Your task to perform on an android device: delete location history Image 0: 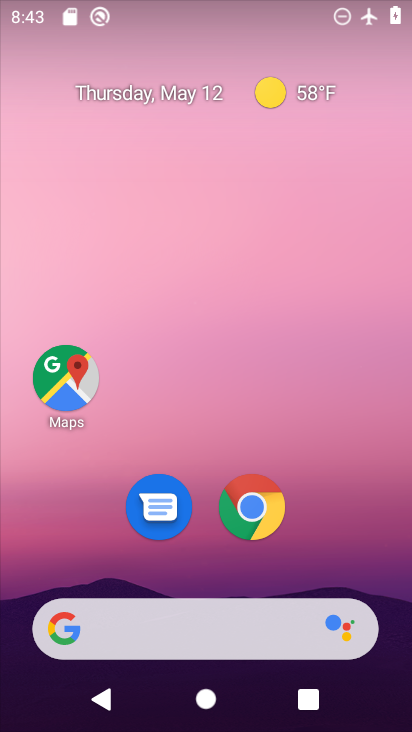
Step 0: drag from (182, 563) to (192, 139)
Your task to perform on an android device: delete location history Image 1: 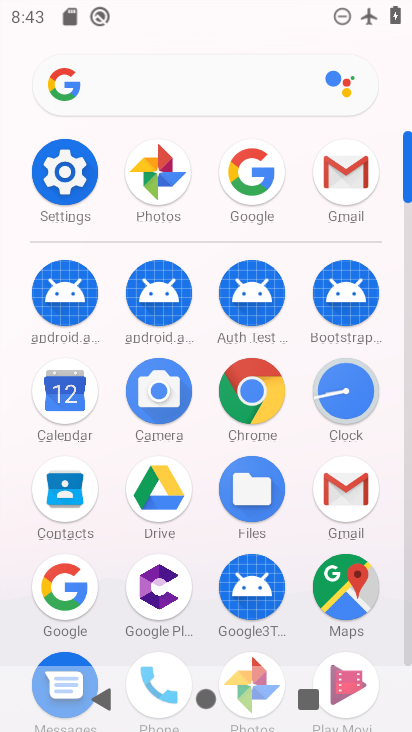
Step 1: click (331, 582)
Your task to perform on an android device: delete location history Image 2: 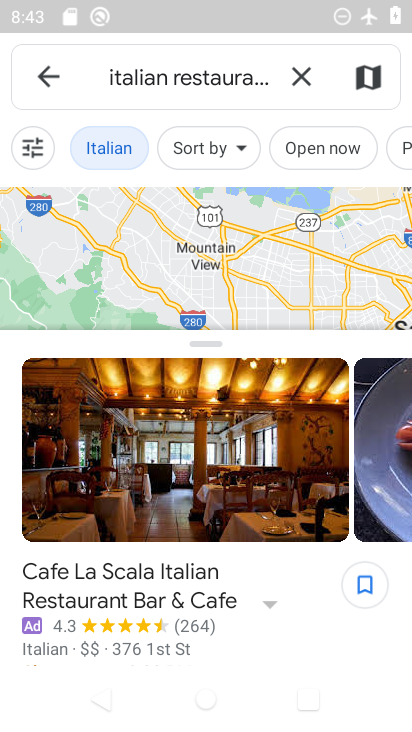
Step 2: click (27, 65)
Your task to perform on an android device: delete location history Image 3: 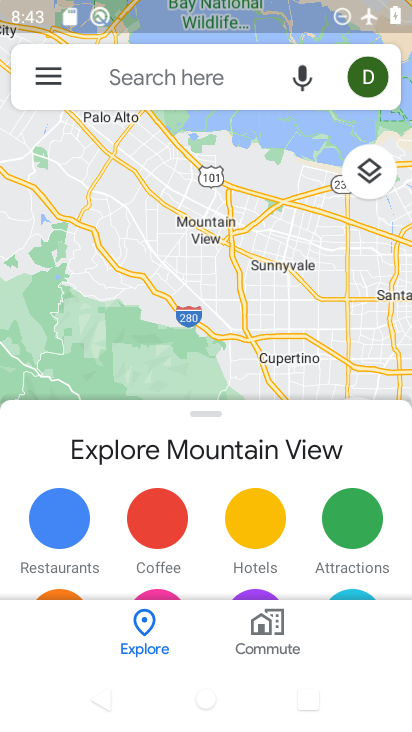
Step 3: click (35, 69)
Your task to perform on an android device: delete location history Image 4: 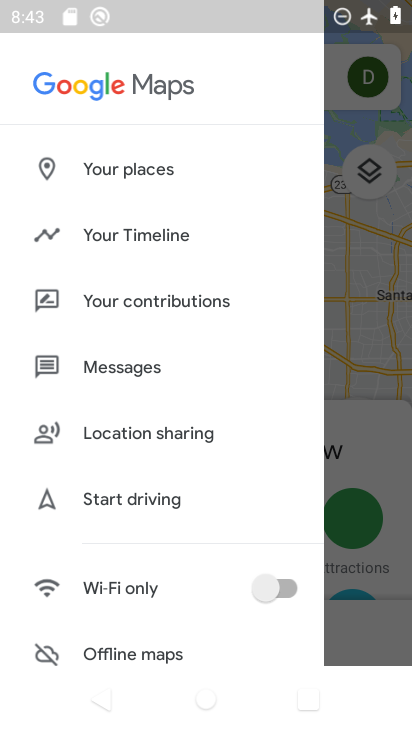
Step 4: click (130, 214)
Your task to perform on an android device: delete location history Image 5: 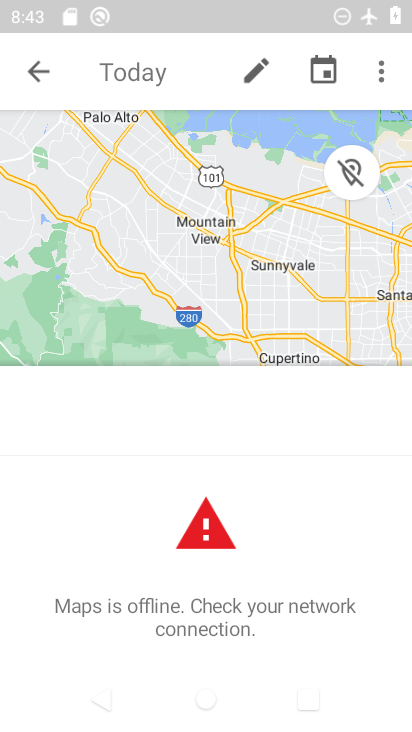
Step 5: click (376, 63)
Your task to perform on an android device: delete location history Image 6: 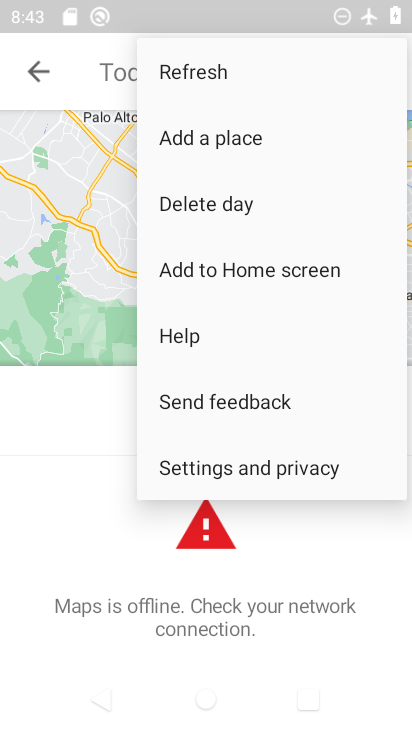
Step 6: click (213, 458)
Your task to perform on an android device: delete location history Image 7: 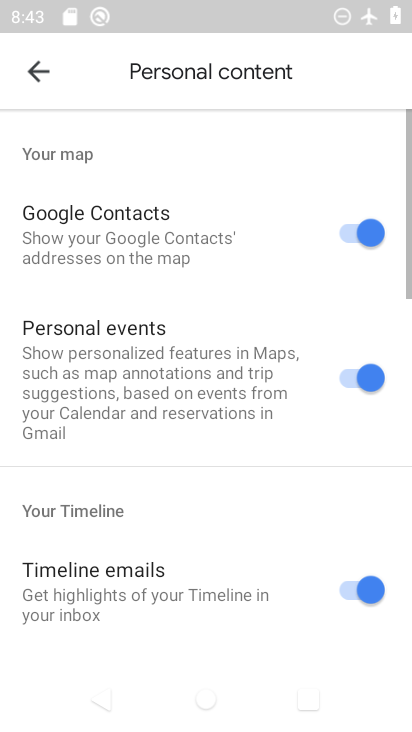
Step 7: drag from (180, 569) to (183, 230)
Your task to perform on an android device: delete location history Image 8: 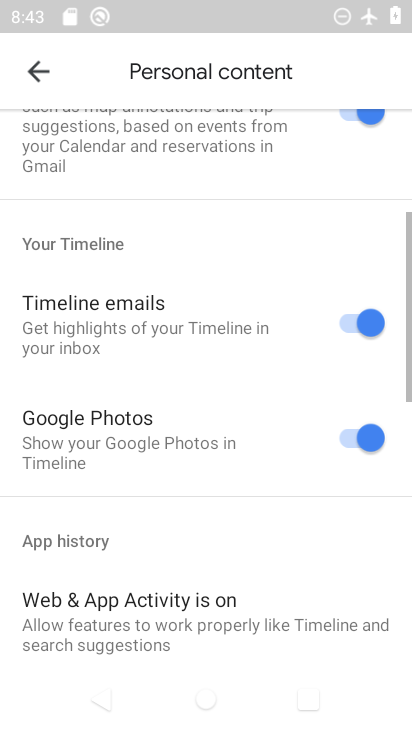
Step 8: drag from (104, 558) to (216, 212)
Your task to perform on an android device: delete location history Image 9: 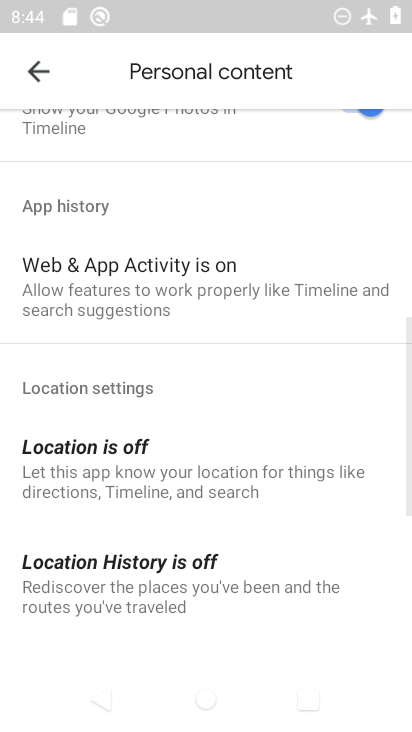
Step 9: drag from (215, 553) to (252, 300)
Your task to perform on an android device: delete location history Image 10: 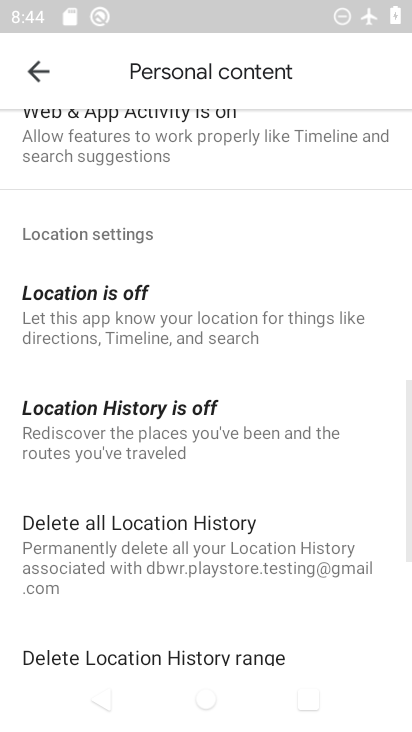
Step 10: click (249, 527)
Your task to perform on an android device: delete location history Image 11: 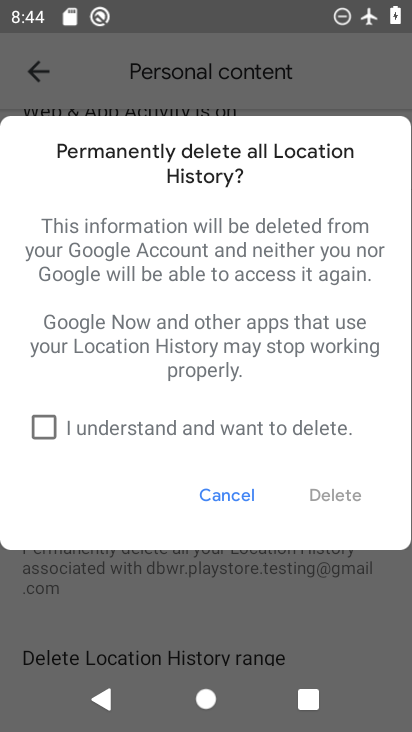
Step 11: click (79, 424)
Your task to perform on an android device: delete location history Image 12: 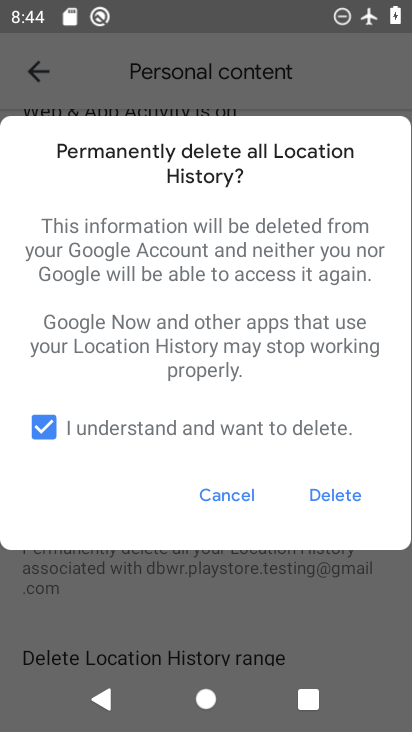
Step 12: click (326, 506)
Your task to perform on an android device: delete location history Image 13: 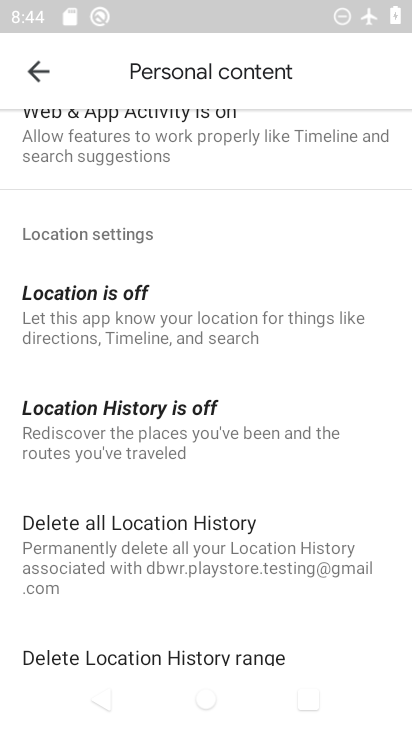
Step 13: task complete